Your task to perform on an android device: toggle airplane mode Image 0: 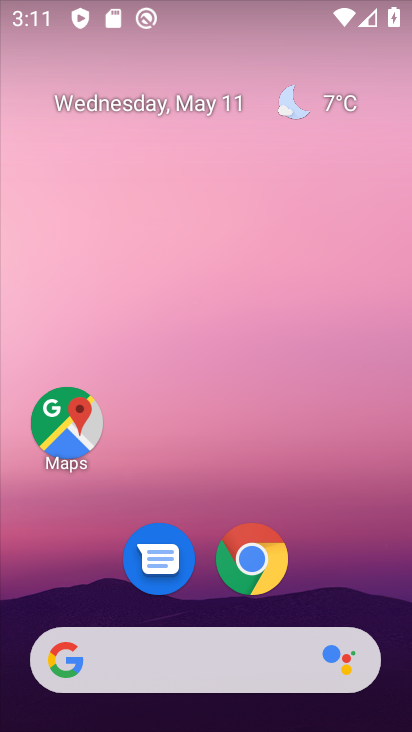
Step 0: drag from (106, 630) to (98, 176)
Your task to perform on an android device: toggle airplane mode Image 1: 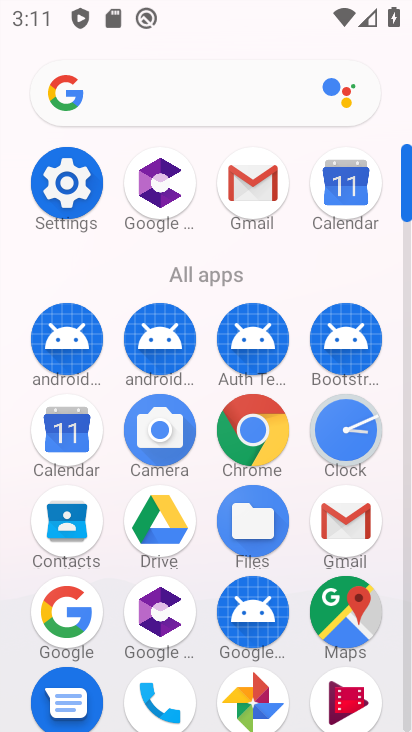
Step 1: click (83, 185)
Your task to perform on an android device: toggle airplane mode Image 2: 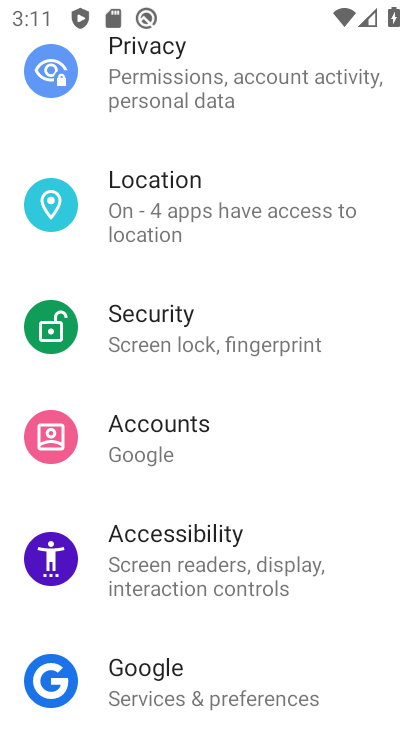
Step 2: drag from (202, 99) to (205, 572)
Your task to perform on an android device: toggle airplane mode Image 3: 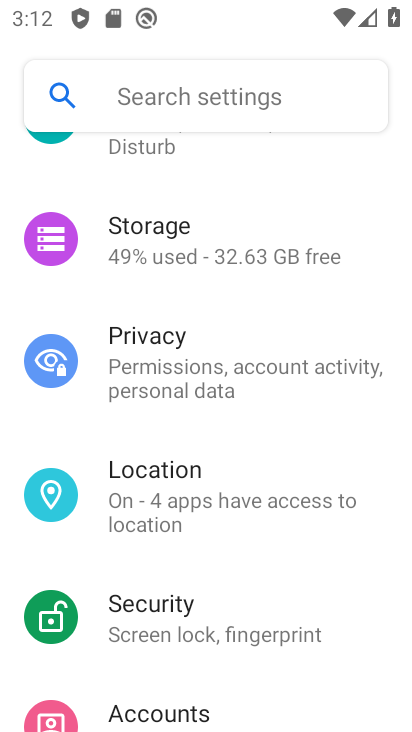
Step 3: drag from (244, 184) to (212, 646)
Your task to perform on an android device: toggle airplane mode Image 4: 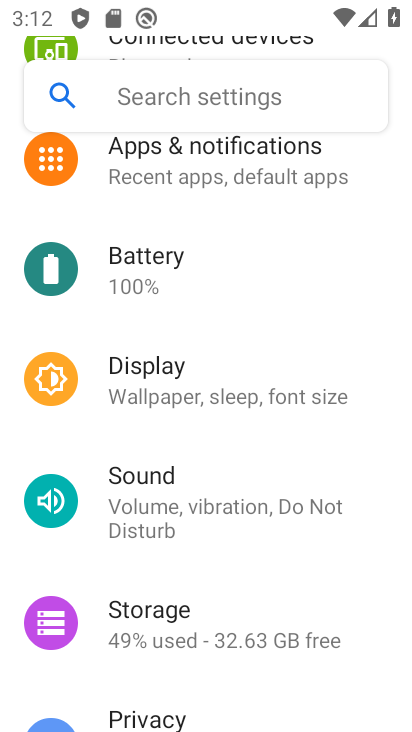
Step 4: drag from (184, 192) to (222, 549)
Your task to perform on an android device: toggle airplane mode Image 5: 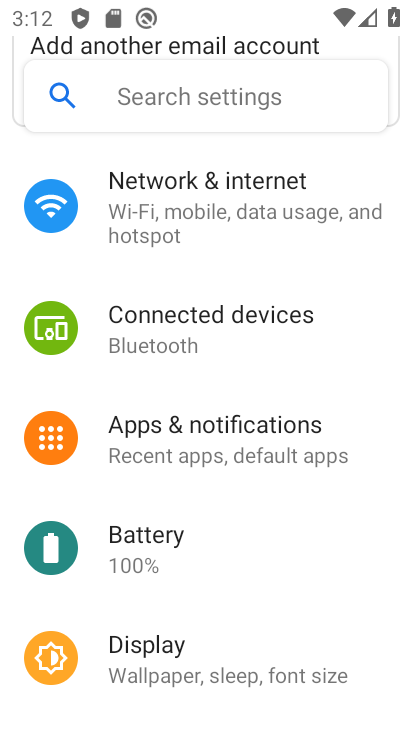
Step 5: click (167, 223)
Your task to perform on an android device: toggle airplane mode Image 6: 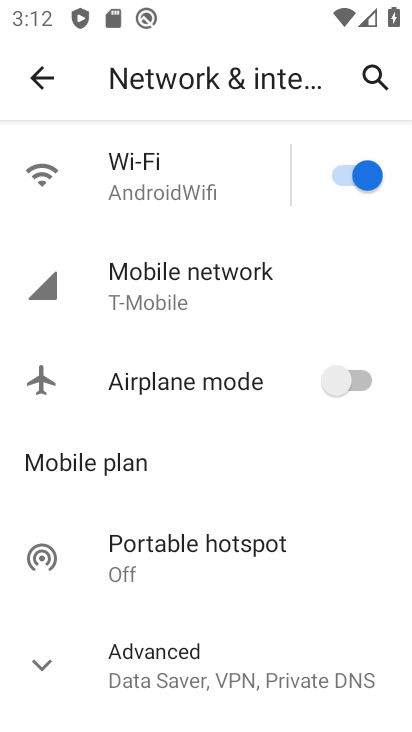
Step 6: click (362, 380)
Your task to perform on an android device: toggle airplane mode Image 7: 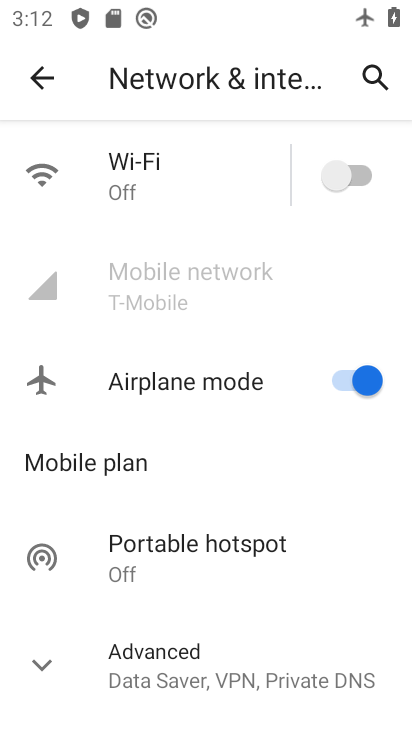
Step 7: task complete